Your task to perform on an android device: change notifications settings Image 0: 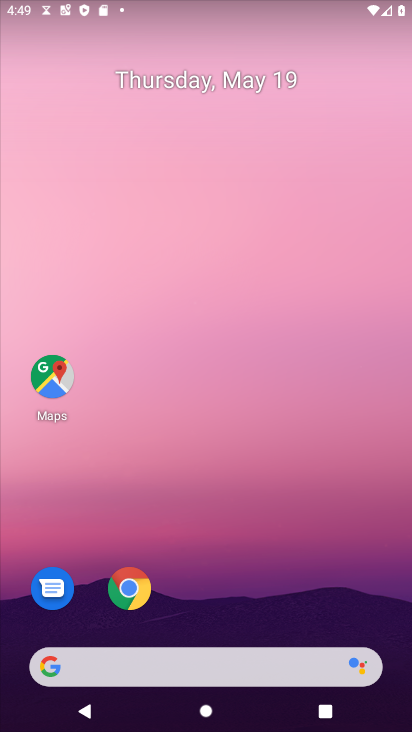
Step 0: drag from (214, 623) to (280, 113)
Your task to perform on an android device: change notifications settings Image 1: 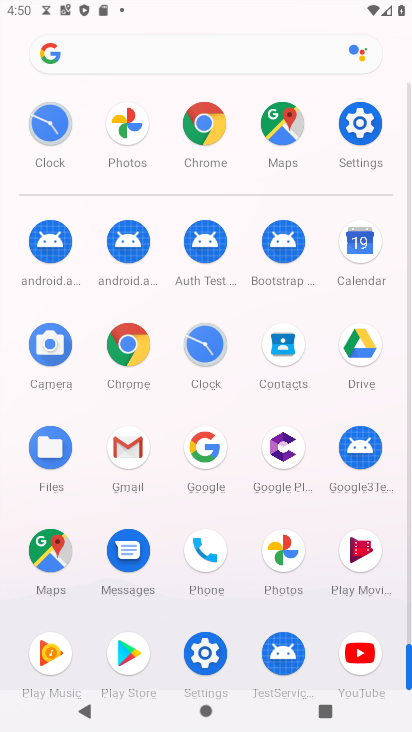
Step 1: click (203, 660)
Your task to perform on an android device: change notifications settings Image 2: 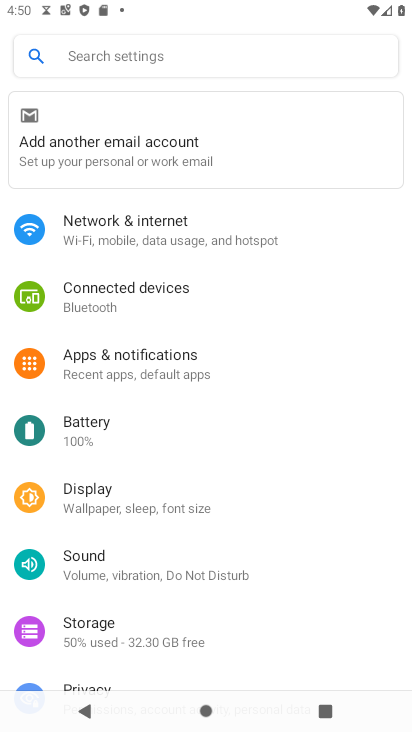
Step 2: click (145, 365)
Your task to perform on an android device: change notifications settings Image 3: 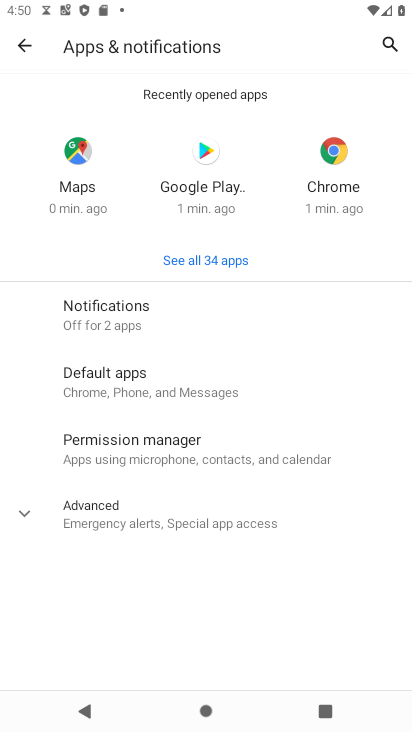
Step 3: click (147, 324)
Your task to perform on an android device: change notifications settings Image 4: 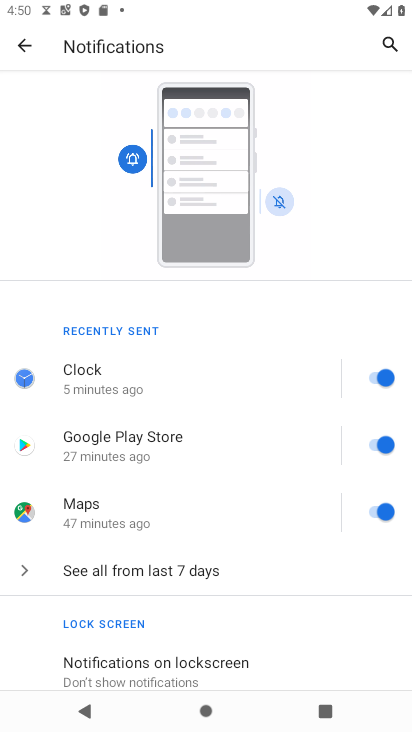
Step 4: drag from (214, 576) to (243, 255)
Your task to perform on an android device: change notifications settings Image 5: 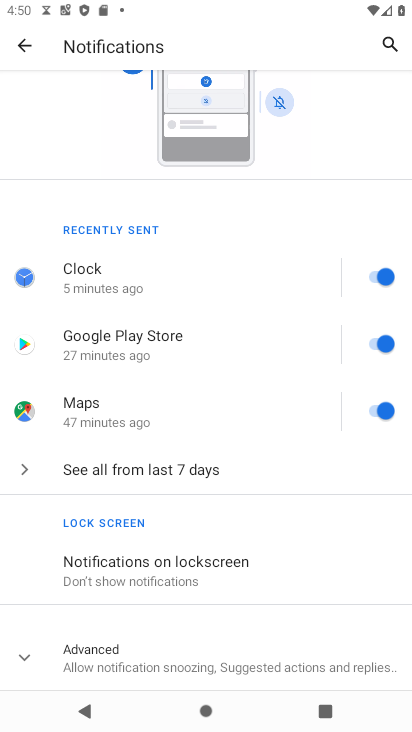
Step 5: click (374, 277)
Your task to perform on an android device: change notifications settings Image 6: 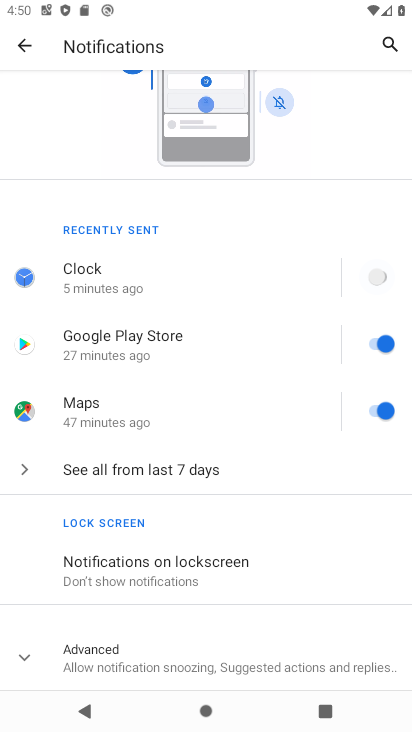
Step 6: click (378, 349)
Your task to perform on an android device: change notifications settings Image 7: 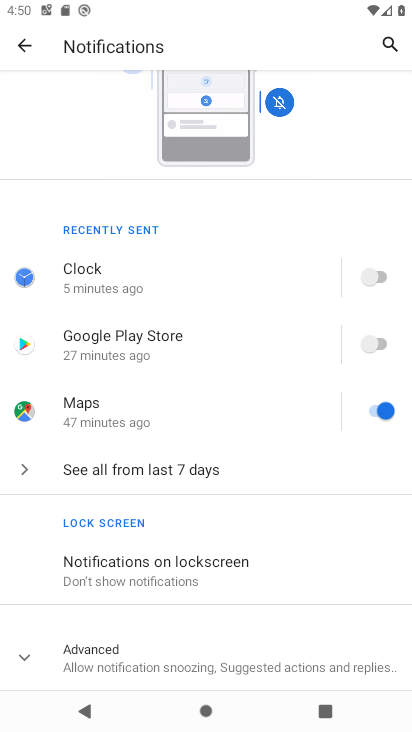
Step 7: click (379, 406)
Your task to perform on an android device: change notifications settings Image 8: 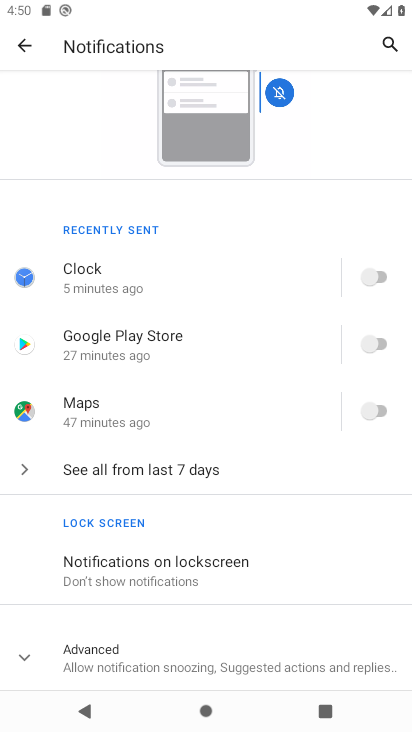
Step 8: click (178, 458)
Your task to perform on an android device: change notifications settings Image 9: 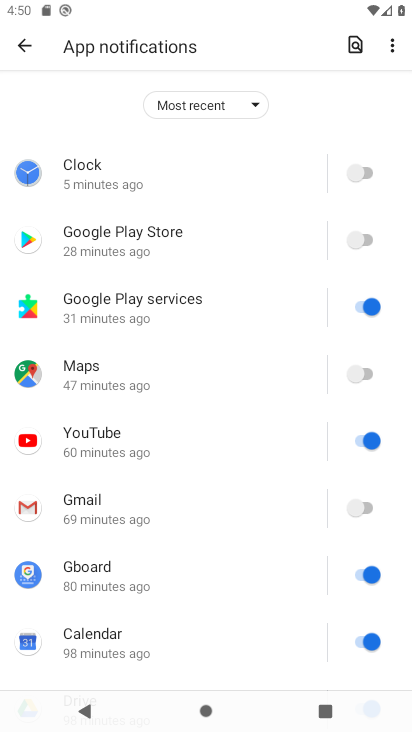
Step 9: click (347, 309)
Your task to perform on an android device: change notifications settings Image 10: 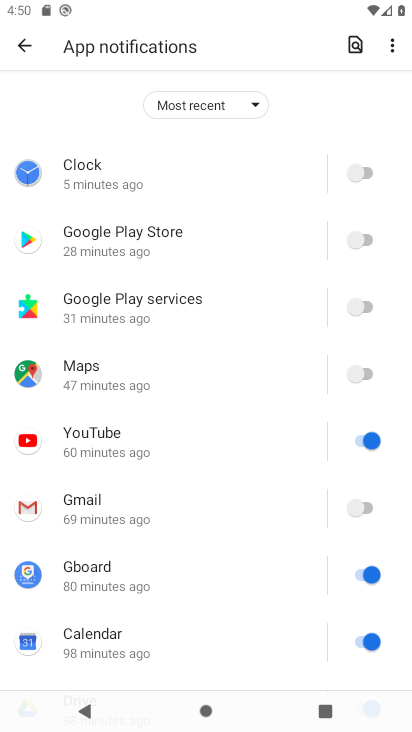
Step 10: click (354, 434)
Your task to perform on an android device: change notifications settings Image 11: 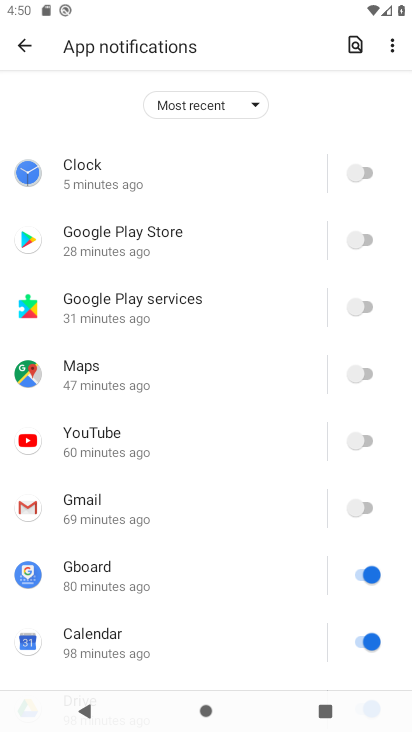
Step 11: click (351, 589)
Your task to perform on an android device: change notifications settings Image 12: 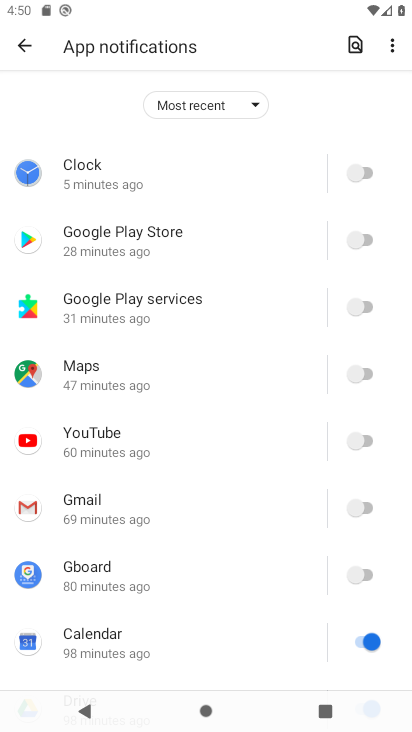
Step 12: click (361, 641)
Your task to perform on an android device: change notifications settings Image 13: 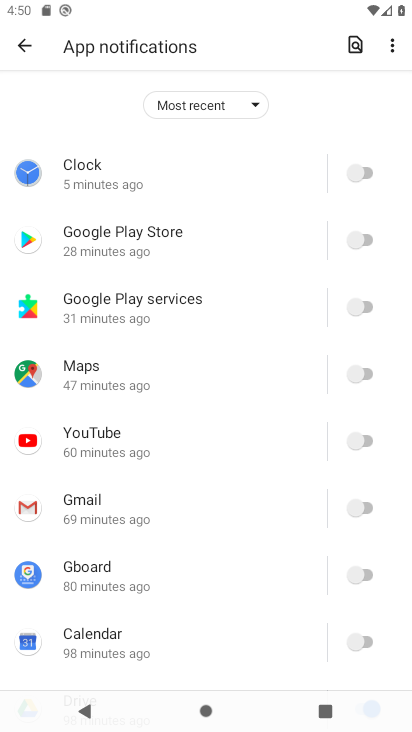
Step 13: task complete